Your task to perform on an android device: Open Maps and search for coffee Image 0: 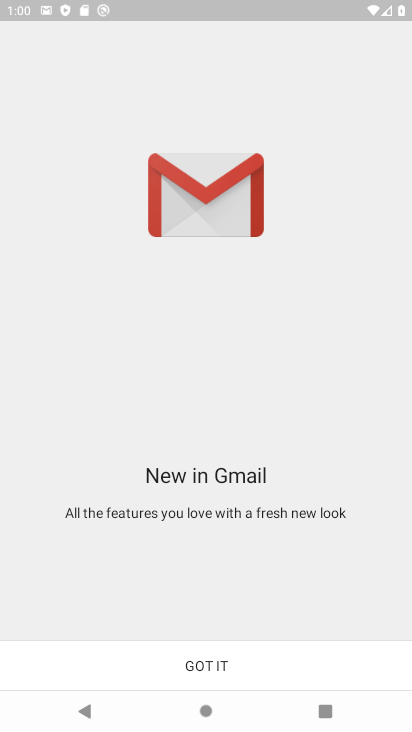
Step 0: press home button
Your task to perform on an android device: Open Maps and search for coffee Image 1: 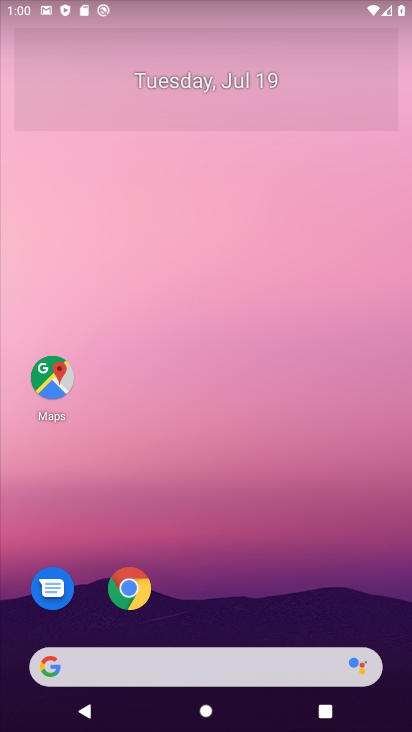
Step 1: click (49, 382)
Your task to perform on an android device: Open Maps and search for coffee Image 2: 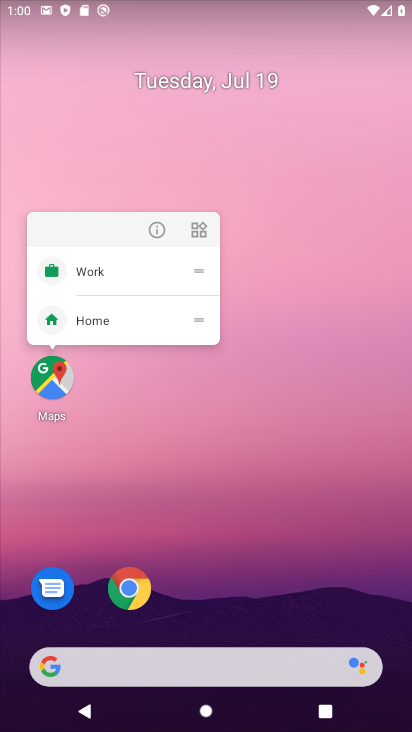
Step 2: click (48, 382)
Your task to perform on an android device: Open Maps and search for coffee Image 3: 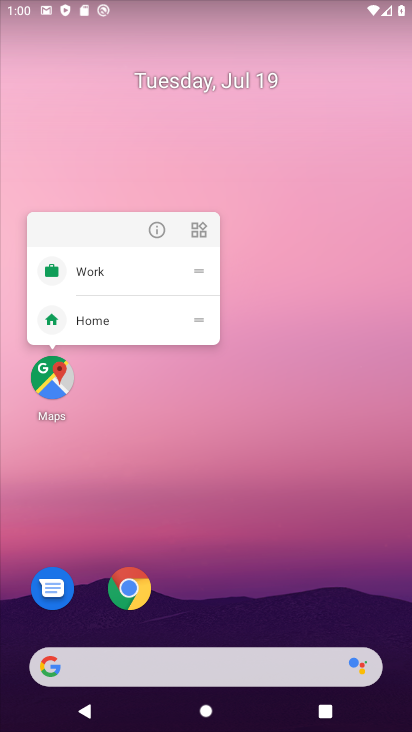
Step 3: click (45, 385)
Your task to perform on an android device: Open Maps and search for coffee Image 4: 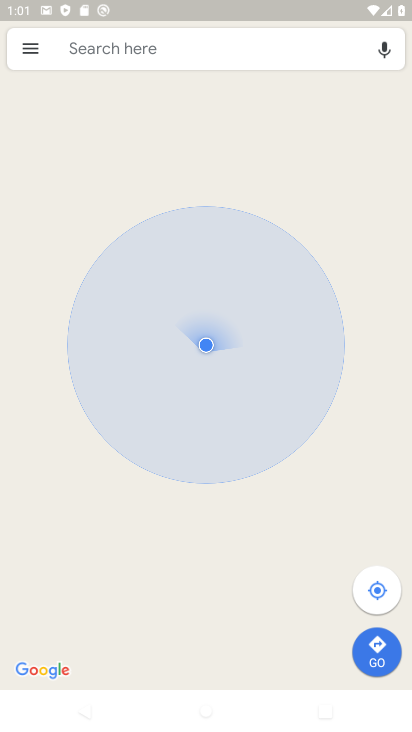
Step 4: click (83, 39)
Your task to perform on an android device: Open Maps and search for coffee Image 5: 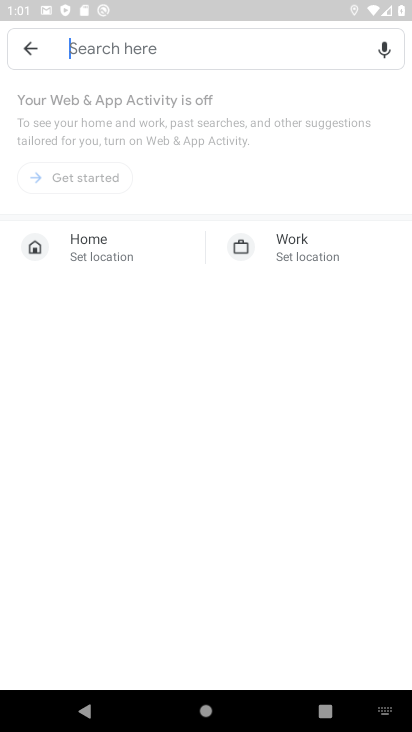
Step 5: type " coffee"
Your task to perform on an android device: Open Maps and search for coffee Image 6: 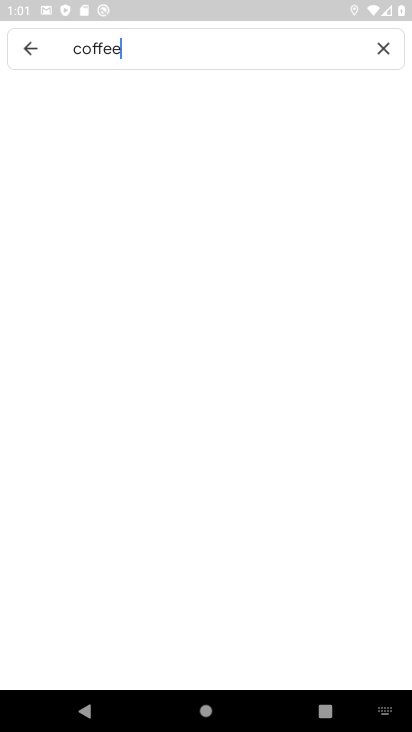
Step 6: type ""
Your task to perform on an android device: Open Maps and search for coffee Image 7: 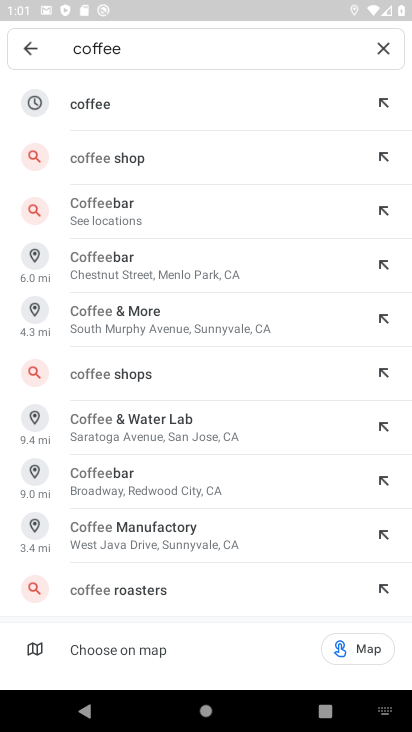
Step 7: click (106, 120)
Your task to perform on an android device: Open Maps and search for coffee Image 8: 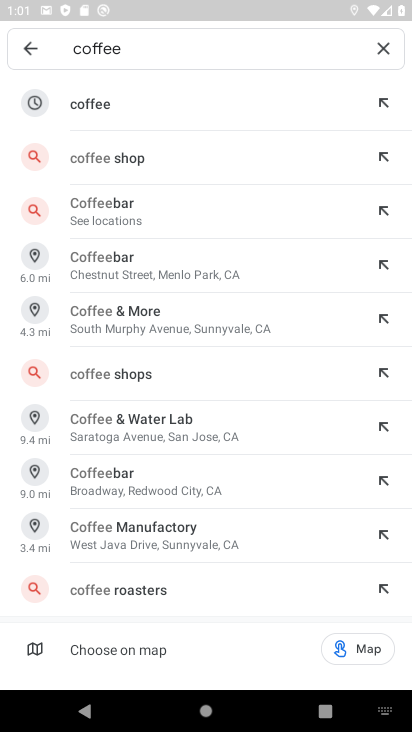
Step 8: click (82, 86)
Your task to perform on an android device: Open Maps and search for coffee Image 9: 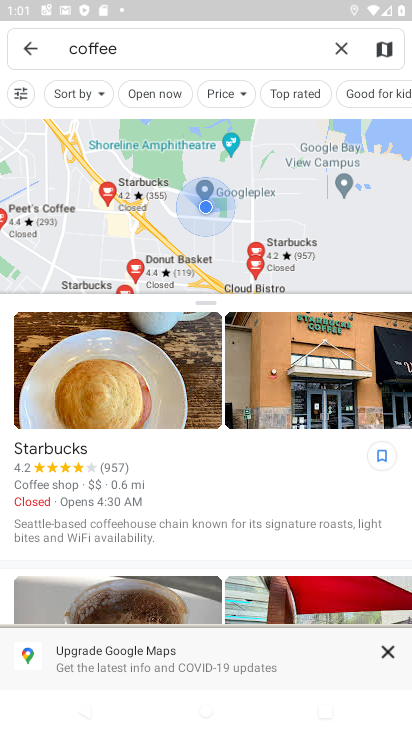
Step 9: task complete